Your task to perform on an android device: Open eBay Image 0: 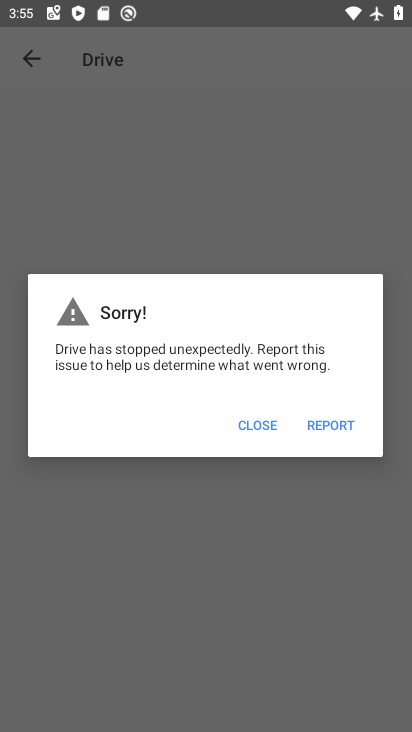
Step 0: press home button
Your task to perform on an android device: Open eBay Image 1: 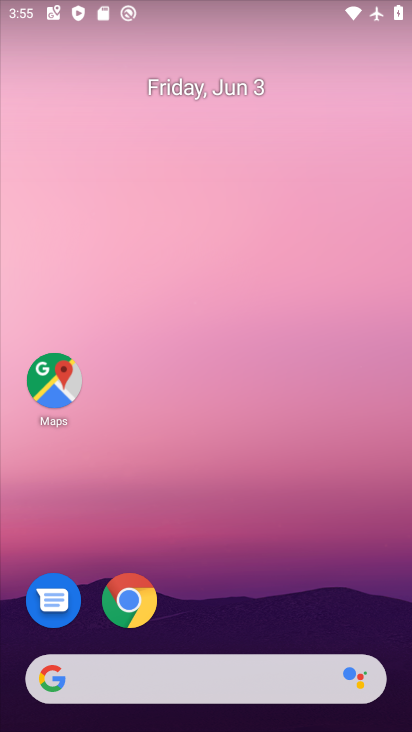
Step 1: click (131, 594)
Your task to perform on an android device: Open eBay Image 2: 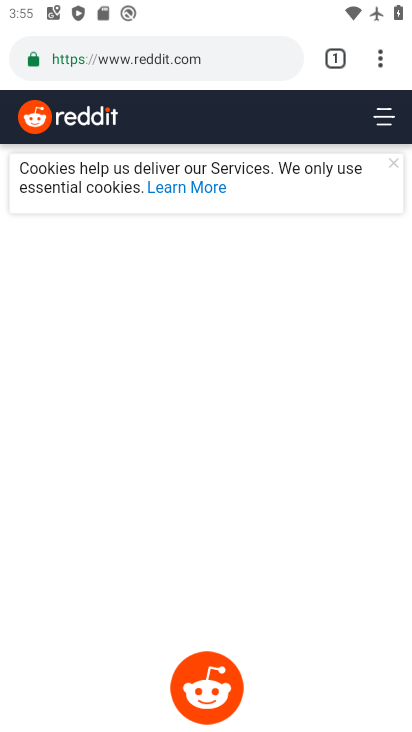
Step 2: click (182, 53)
Your task to perform on an android device: Open eBay Image 3: 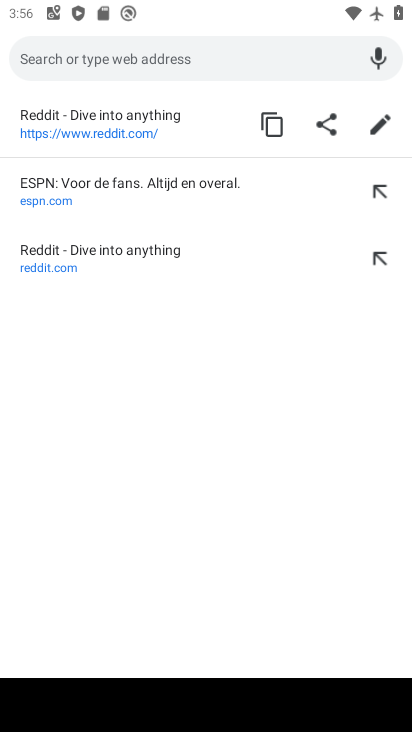
Step 3: type "eBay"
Your task to perform on an android device: Open eBay Image 4: 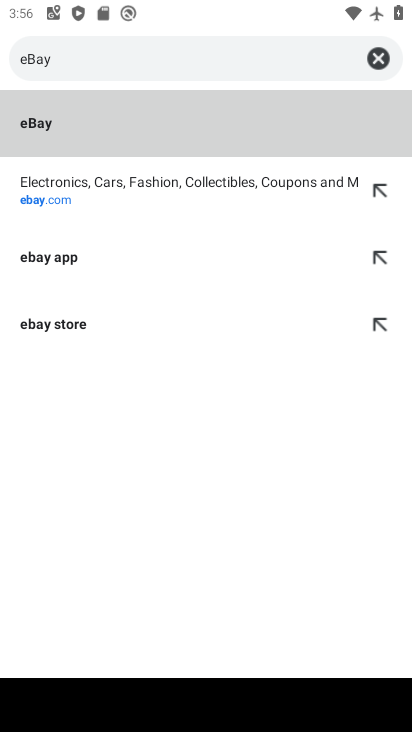
Step 4: click (93, 127)
Your task to perform on an android device: Open eBay Image 5: 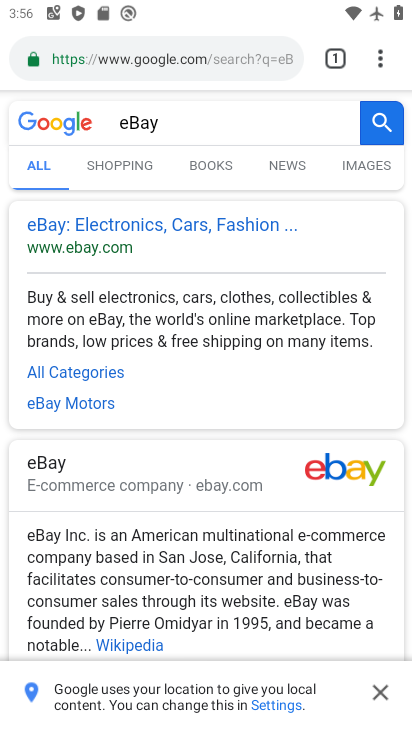
Step 5: task complete